Your task to perform on an android device: Turn on the flashlight Image 0: 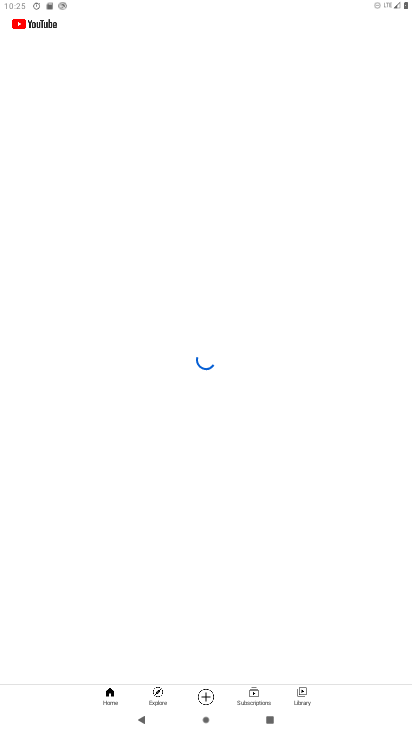
Step 0: press home button
Your task to perform on an android device: Turn on the flashlight Image 1: 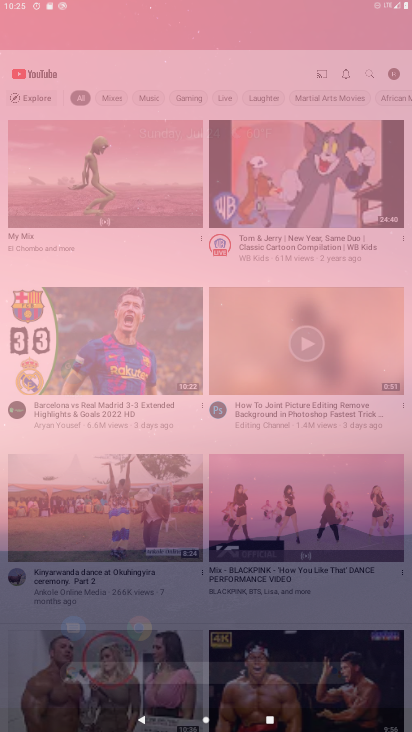
Step 1: drag from (266, 607) to (221, 9)
Your task to perform on an android device: Turn on the flashlight Image 2: 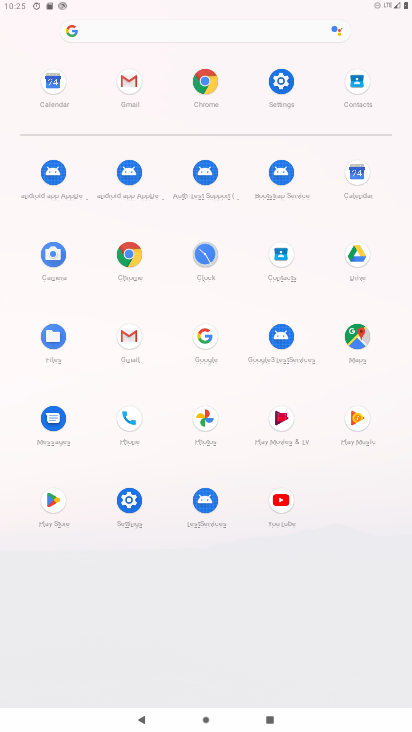
Step 2: click (286, 71)
Your task to perform on an android device: Turn on the flashlight Image 3: 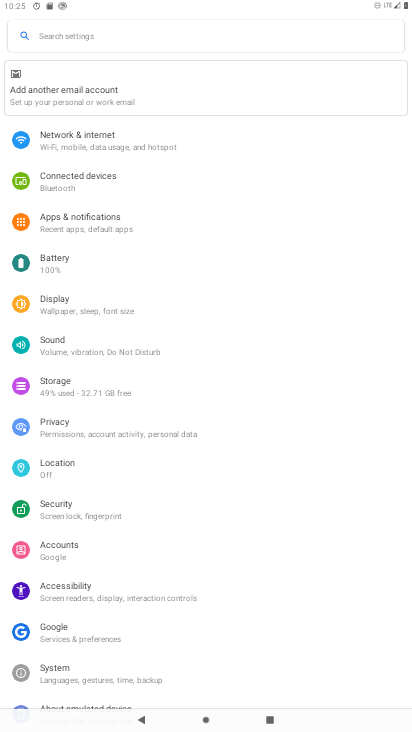
Step 3: click (96, 309)
Your task to perform on an android device: Turn on the flashlight Image 4: 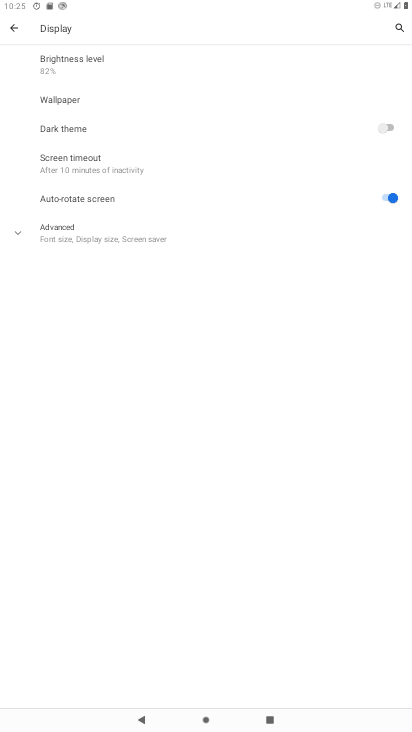
Step 4: task complete